Your task to perform on an android device: Open maps Image 0: 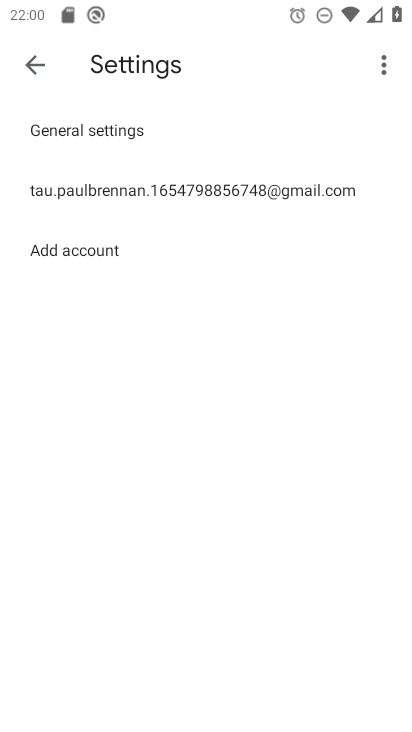
Step 0: press home button
Your task to perform on an android device: Open maps Image 1: 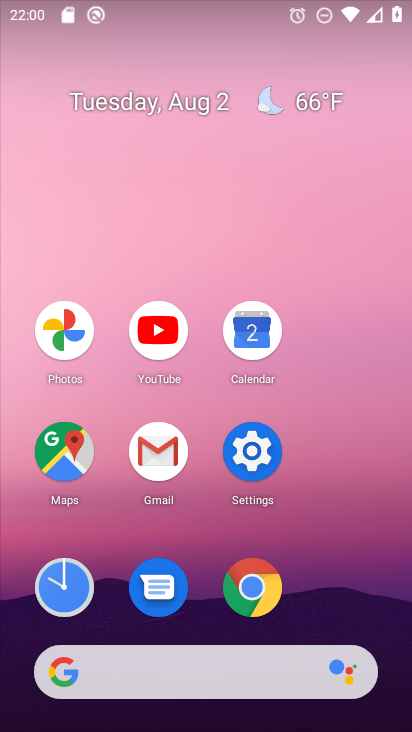
Step 1: click (58, 460)
Your task to perform on an android device: Open maps Image 2: 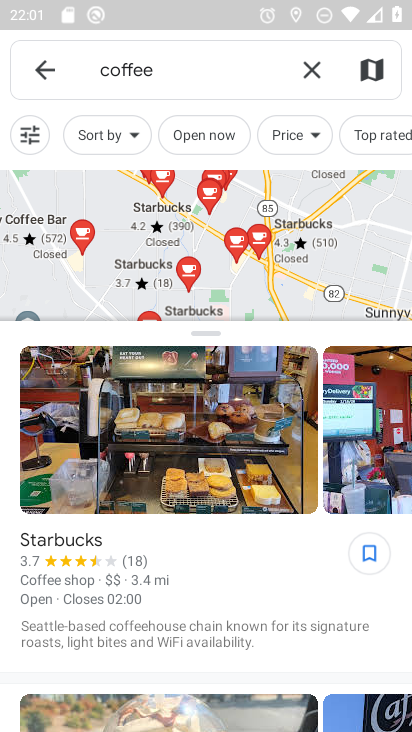
Step 2: click (42, 70)
Your task to perform on an android device: Open maps Image 3: 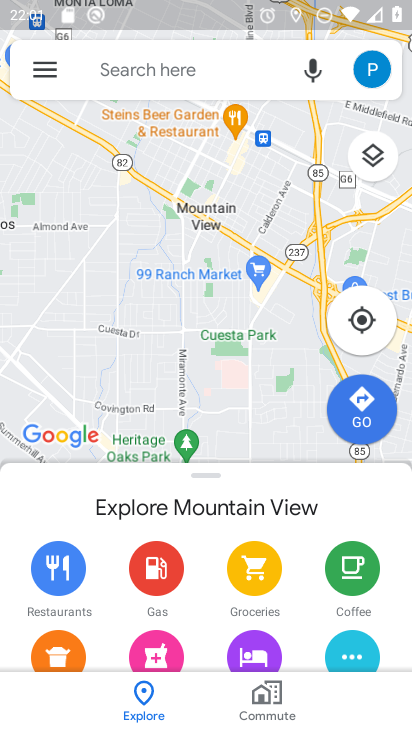
Step 3: task complete